Your task to perform on an android device: change alarm snooze length Image 0: 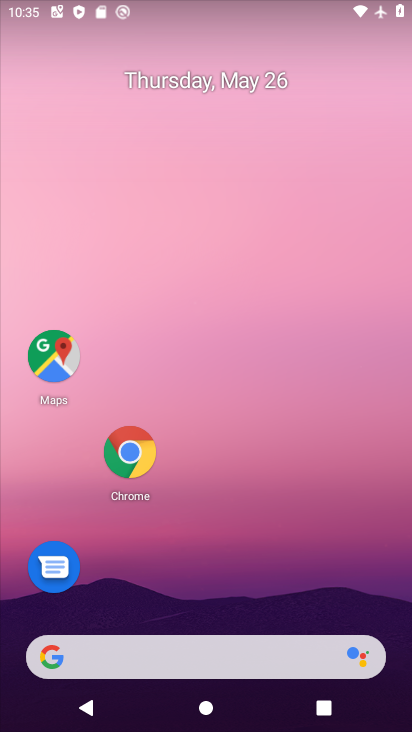
Step 0: press home button
Your task to perform on an android device: change alarm snooze length Image 1: 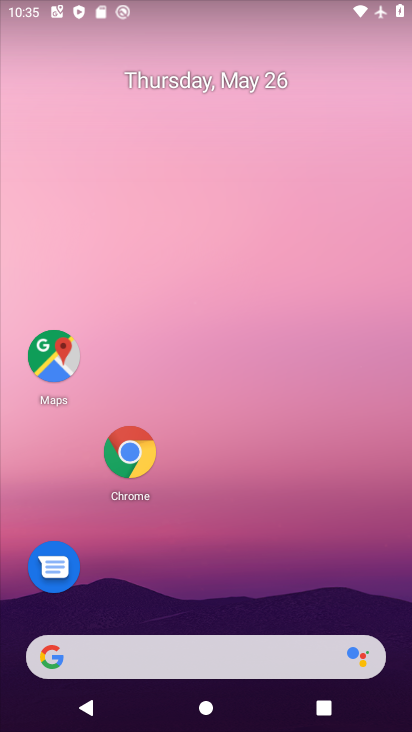
Step 1: drag from (183, 657) to (313, 53)
Your task to perform on an android device: change alarm snooze length Image 2: 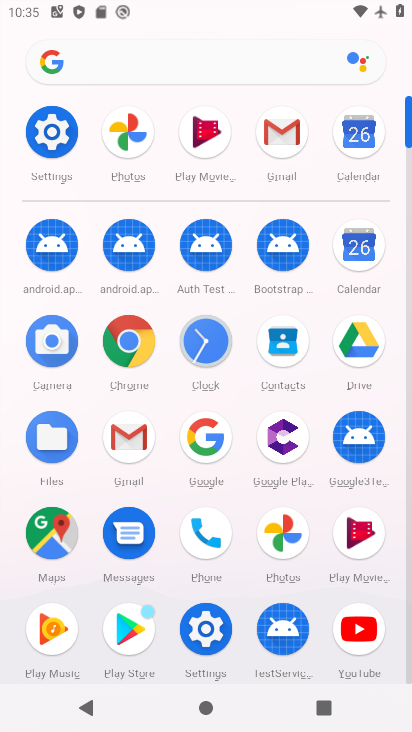
Step 2: click (208, 343)
Your task to perform on an android device: change alarm snooze length Image 3: 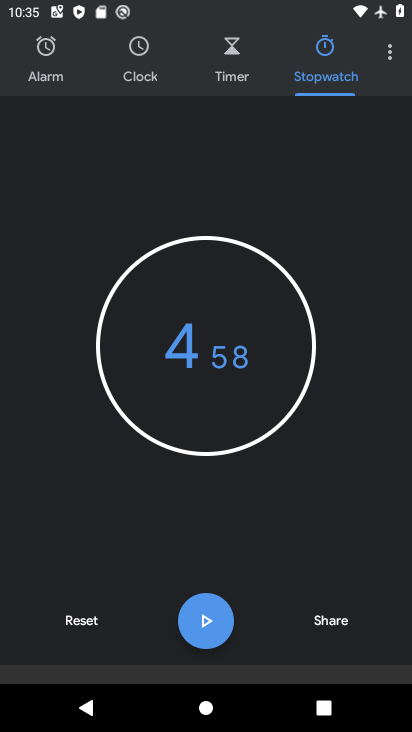
Step 3: click (388, 55)
Your task to perform on an android device: change alarm snooze length Image 4: 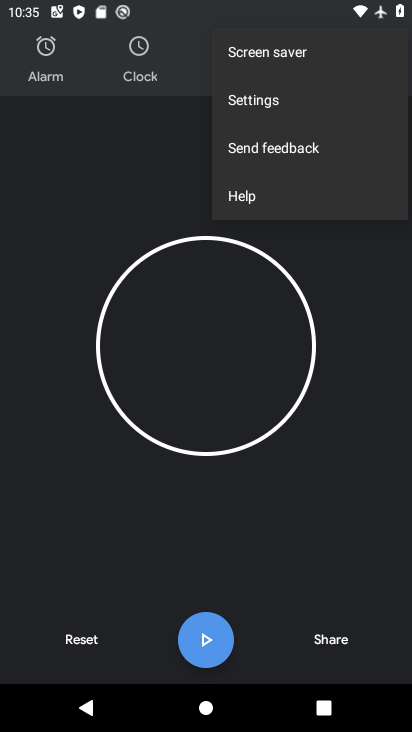
Step 4: click (261, 94)
Your task to perform on an android device: change alarm snooze length Image 5: 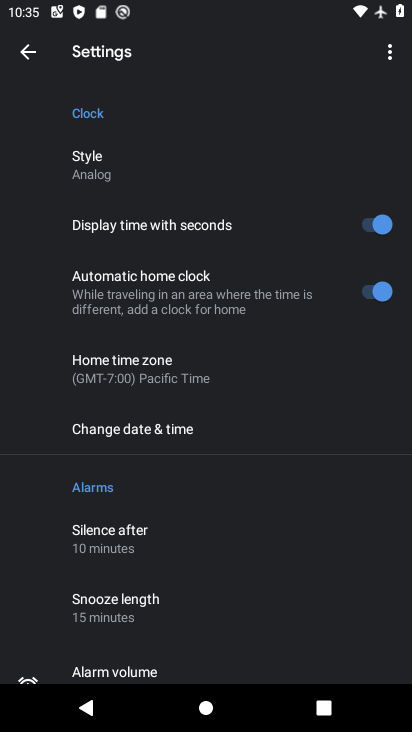
Step 5: drag from (220, 600) to (335, 337)
Your task to perform on an android device: change alarm snooze length Image 6: 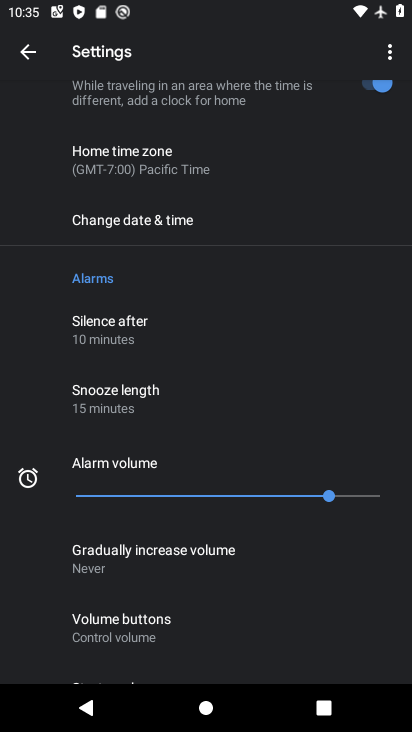
Step 6: click (135, 397)
Your task to perform on an android device: change alarm snooze length Image 7: 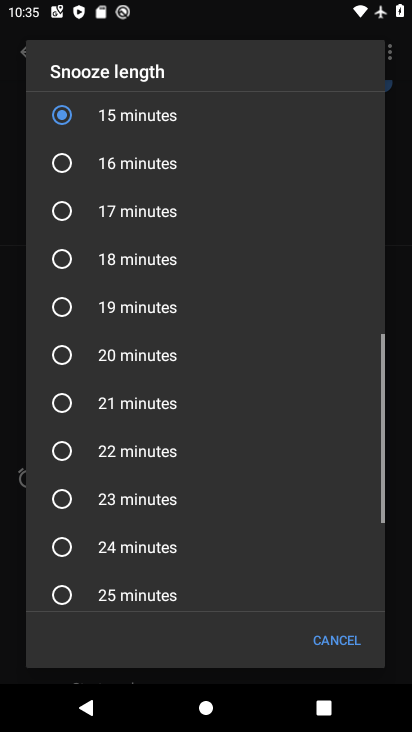
Step 7: drag from (216, 220) to (147, 589)
Your task to perform on an android device: change alarm snooze length Image 8: 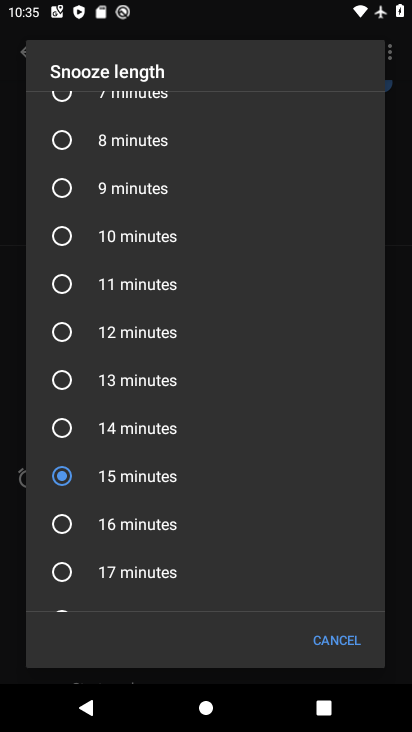
Step 8: click (55, 281)
Your task to perform on an android device: change alarm snooze length Image 9: 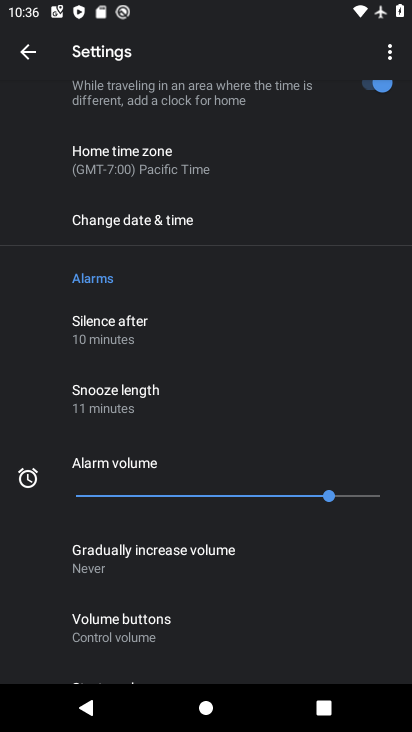
Step 9: task complete